Your task to perform on an android device: delete a single message in the gmail app Image 0: 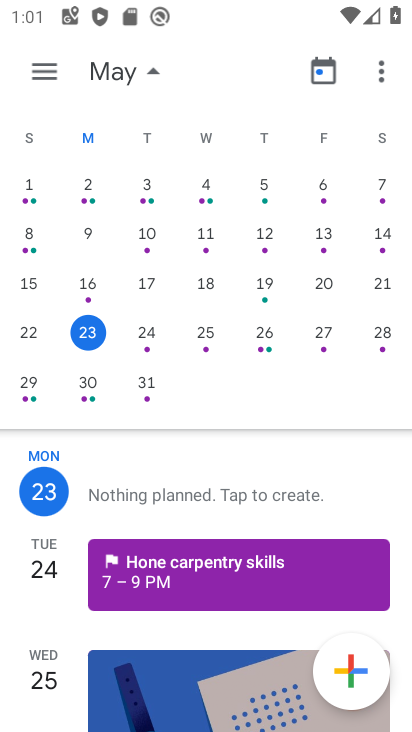
Step 0: press home button
Your task to perform on an android device: delete a single message in the gmail app Image 1: 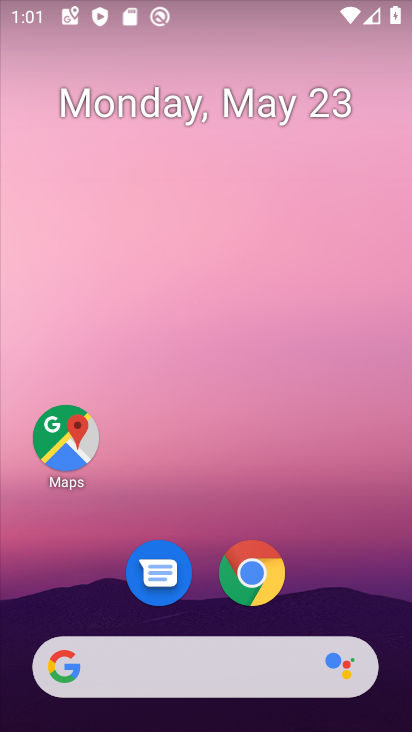
Step 1: drag from (133, 617) to (188, 211)
Your task to perform on an android device: delete a single message in the gmail app Image 2: 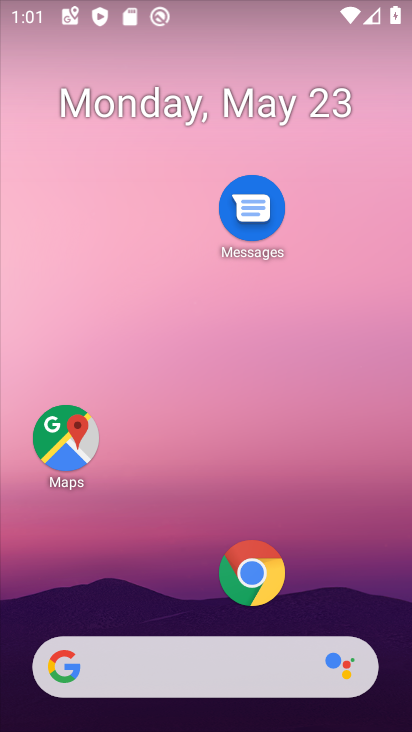
Step 2: drag from (318, 573) to (346, 155)
Your task to perform on an android device: delete a single message in the gmail app Image 3: 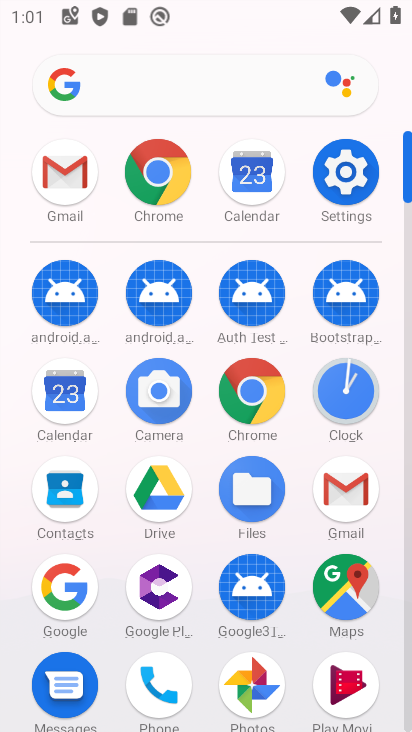
Step 3: click (358, 480)
Your task to perform on an android device: delete a single message in the gmail app Image 4: 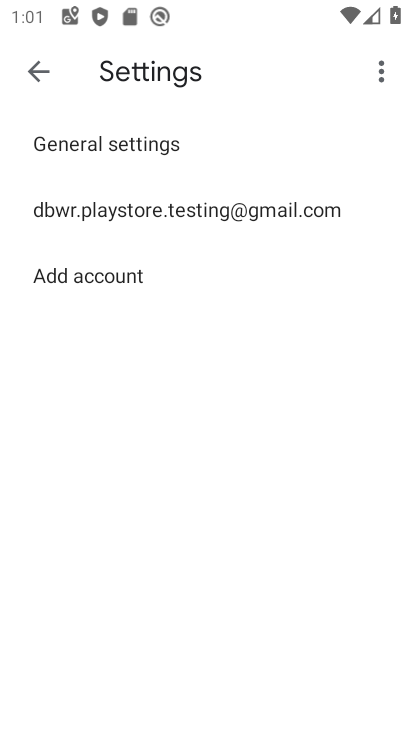
Step 4: task complete